Your task to perform on an android device: toggle airplane mode Image 0: 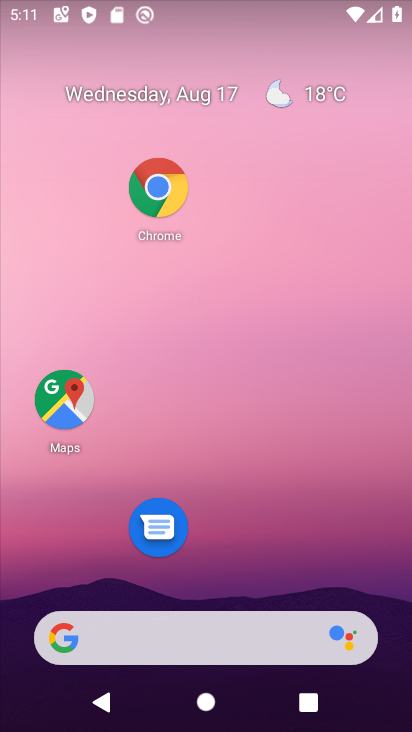
Step 0: drag from (213, 5) to (186, 547)
Your task to perform on an android device: toggle airplane mode Image 1: 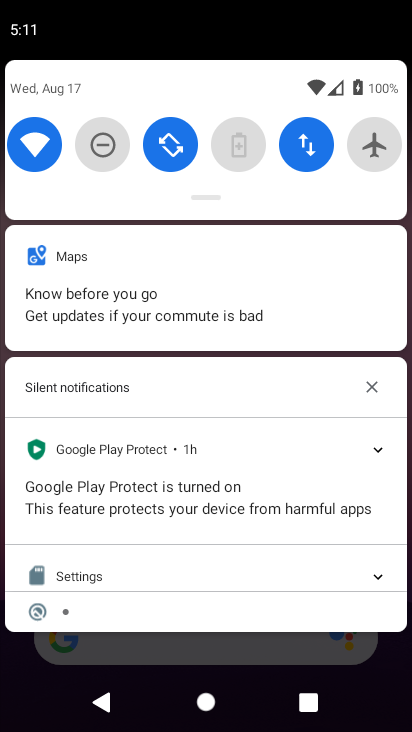
Step 1: click (390, 143)
Your task to perform on an android device: toggle airplane mode Image 2: 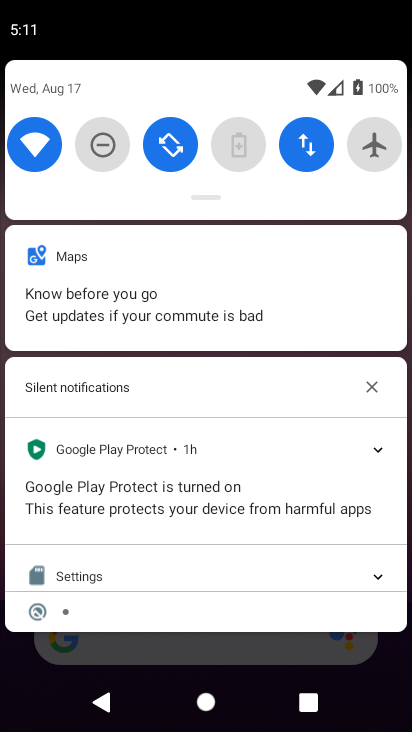
Step 2: click (390, 143)
Your task to perform on an android device: toggle airplane mode Image 3: 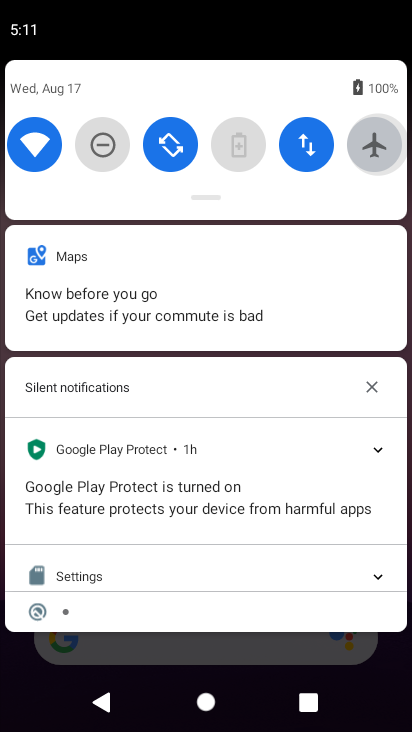
Step 3: click (390, 143)
Your task to perform on an android device: toggle airplane mode Image 4: 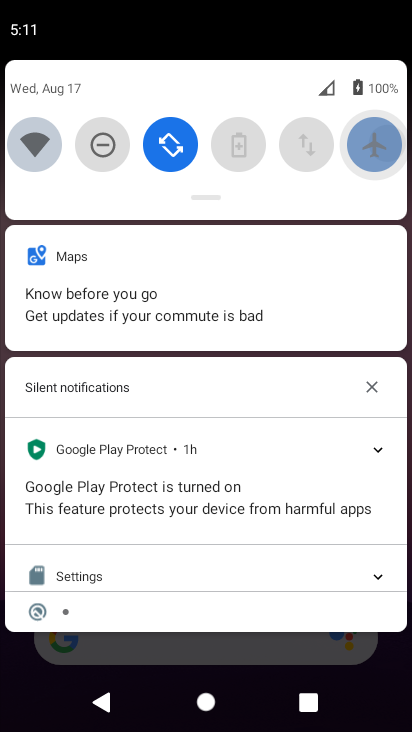
Step 4: click (390, 143)
Your task to perform on an android device: toggle airplane mode Image 5: 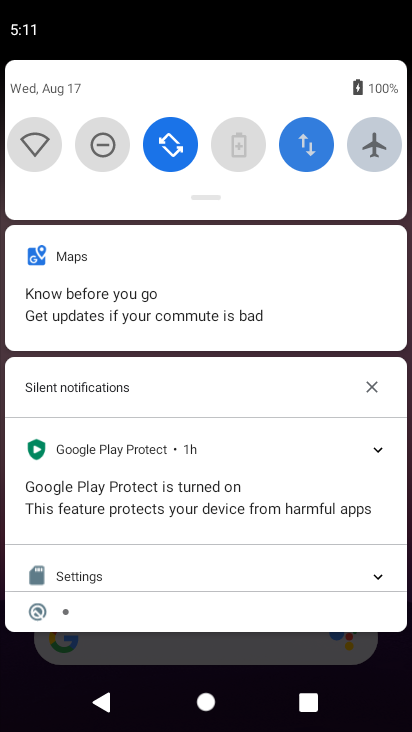
Step 5: click (390, 143)
Your task to perform on an android device: toggle airplane mode Image 6: 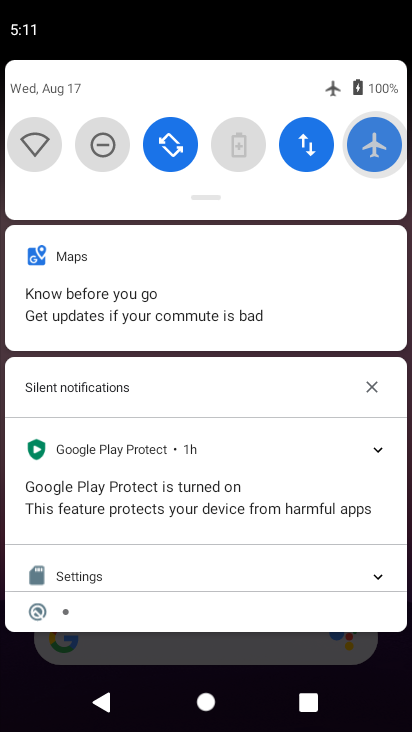
Step 6: click (390, 143)
Your task to perform on an android device: toggle airplane mode Image 7: 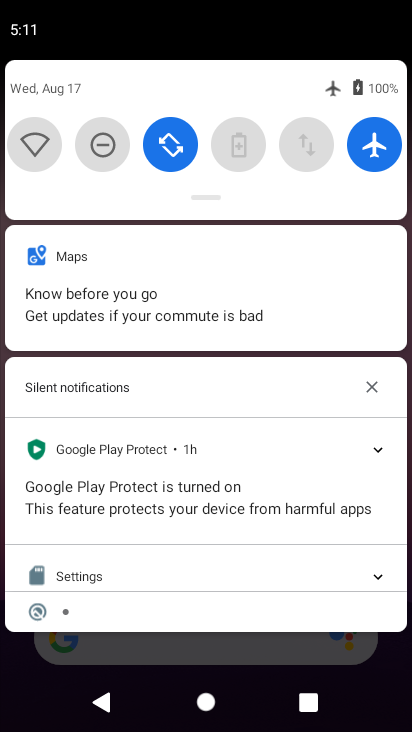
Step 7: click (390, 143)
Your task to perform on an android device: toggle airplane mode Image 8: 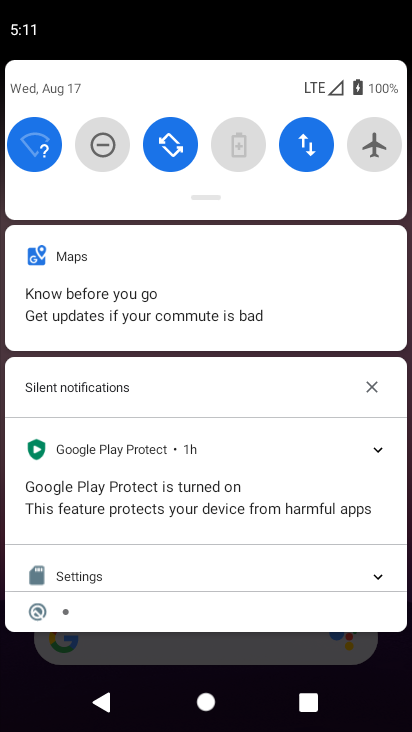
Step 8: task complete